Your task to perform on an android device: turn off improve location accuracy Image 0: 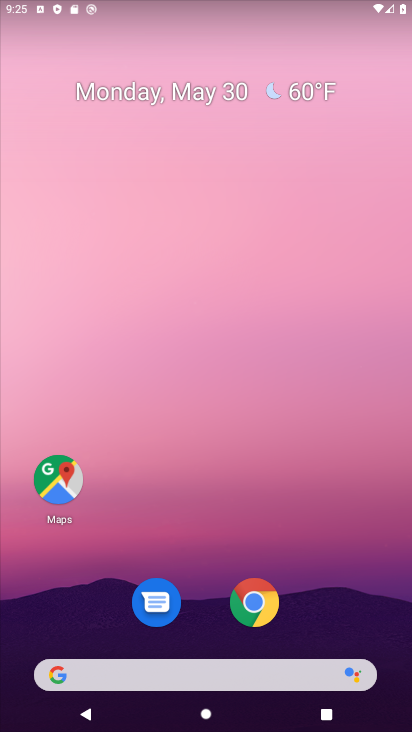
Step 0: drag from (191, 625) to (171, 270)
Your task to perform on an android device: turn off improve location accuracy Image 1: 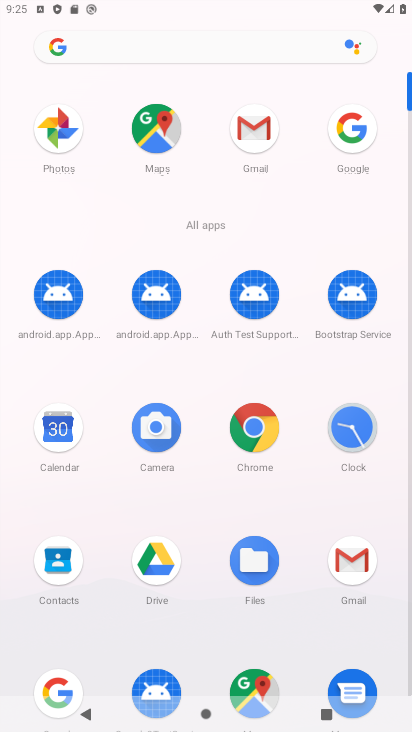
Step 1: drag from (295, 584) to (308, 326)
Your task to perform on an android device: turn off improve location accuracy Image 2: 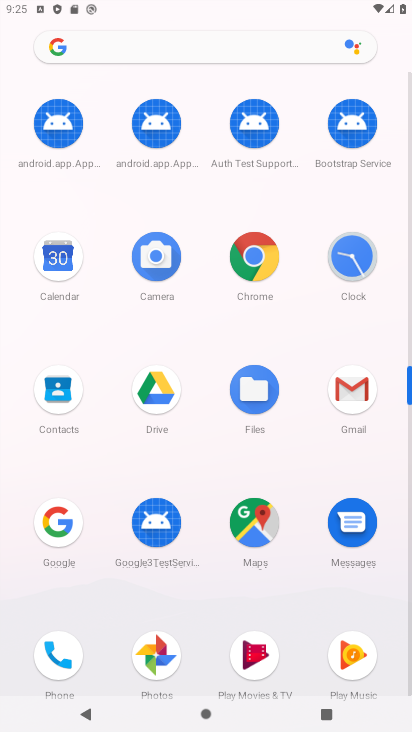
Step 2: drag from (186, 597) to (195, 245)
Your task to perform on an android device: turn off improve location accuracy Image 3: 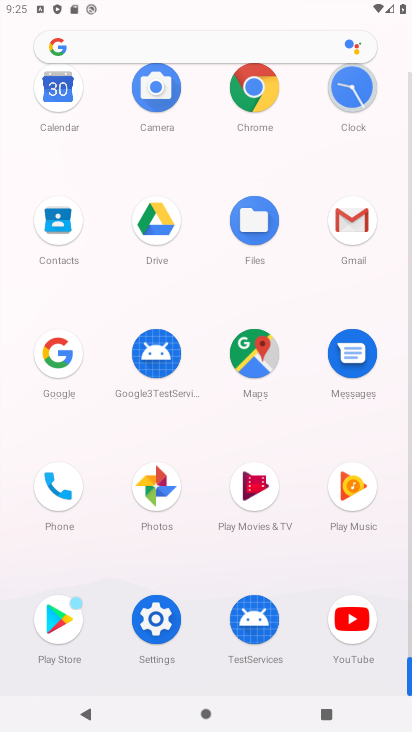
Step 3: click (157, 597)
Your task to perform on an android device: turn off improve location accuracy Image 4: 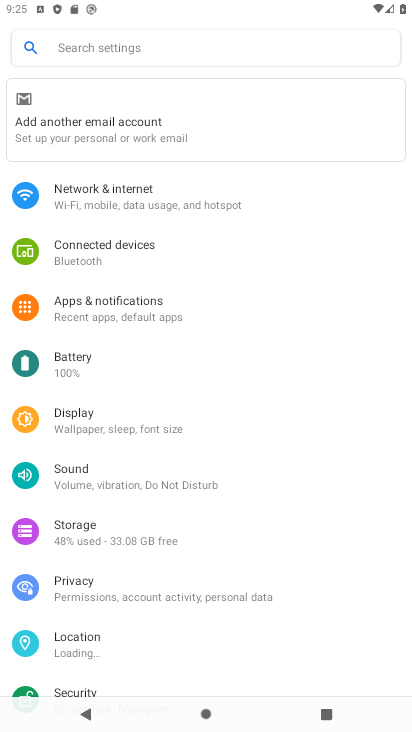
Step 4: drag from (148, 593) to (182, 358)
Your task to perform on an android device: turn off improve location accuracy Image 5: 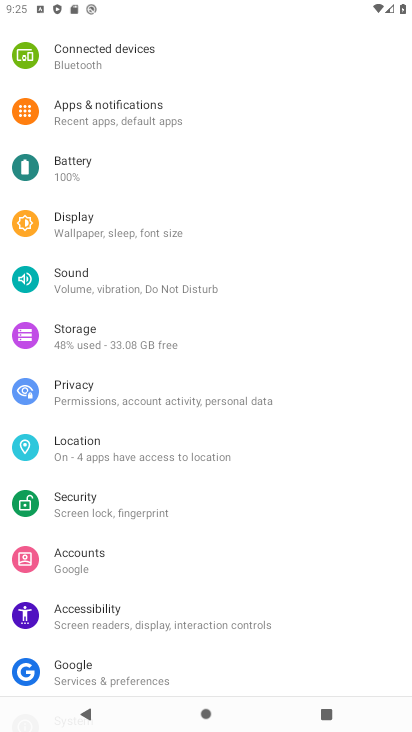
Step 5: click (146, 456)
Your task to perform on an android device: turn off improve location accuracy Image 6: 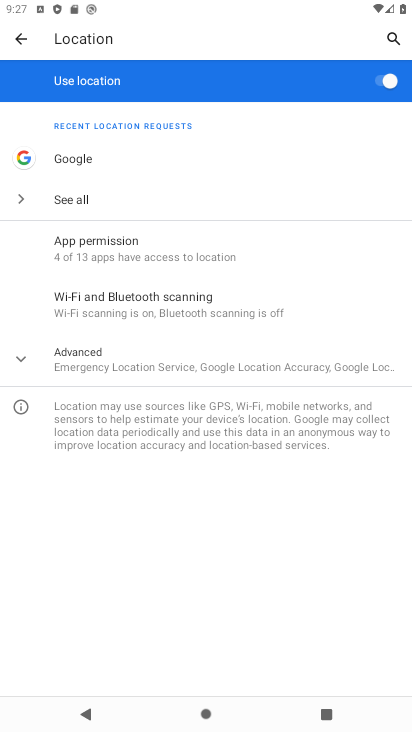
Step 6: click (178, 361)
Your task to perform on an android device: turn off improve location accuracy Image 7: 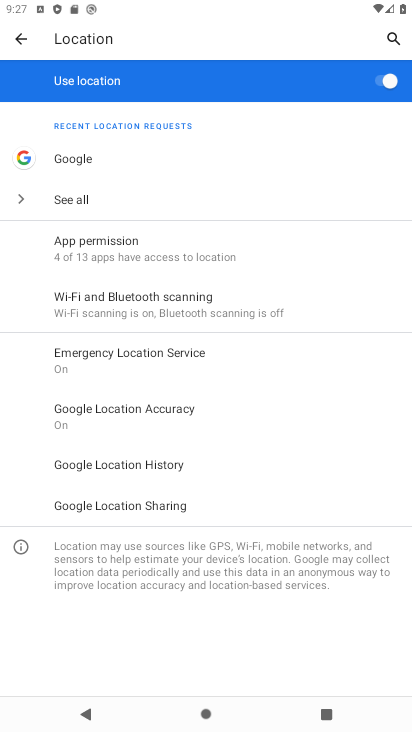
Step 7: click (201, 420)
Your task to perform on an android device: turn off improve location accuracy Image 8: 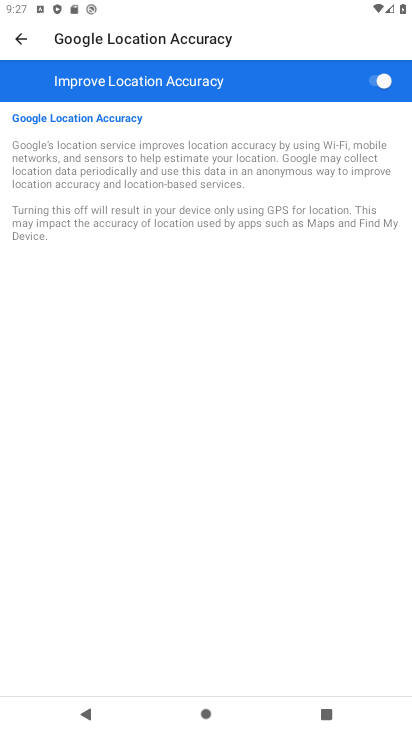
Step 8: click (363, 80)
Your task to perform on an android device: turn off improve location accuracy Image 9: 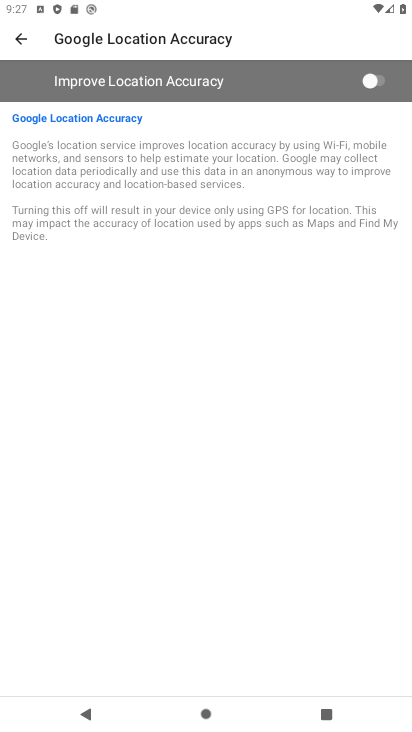
Step 9: task complete